Your task to perform on an android device: Add macbook pro 13 inch to the cart on bestbuy, then select checkout. Image 0: 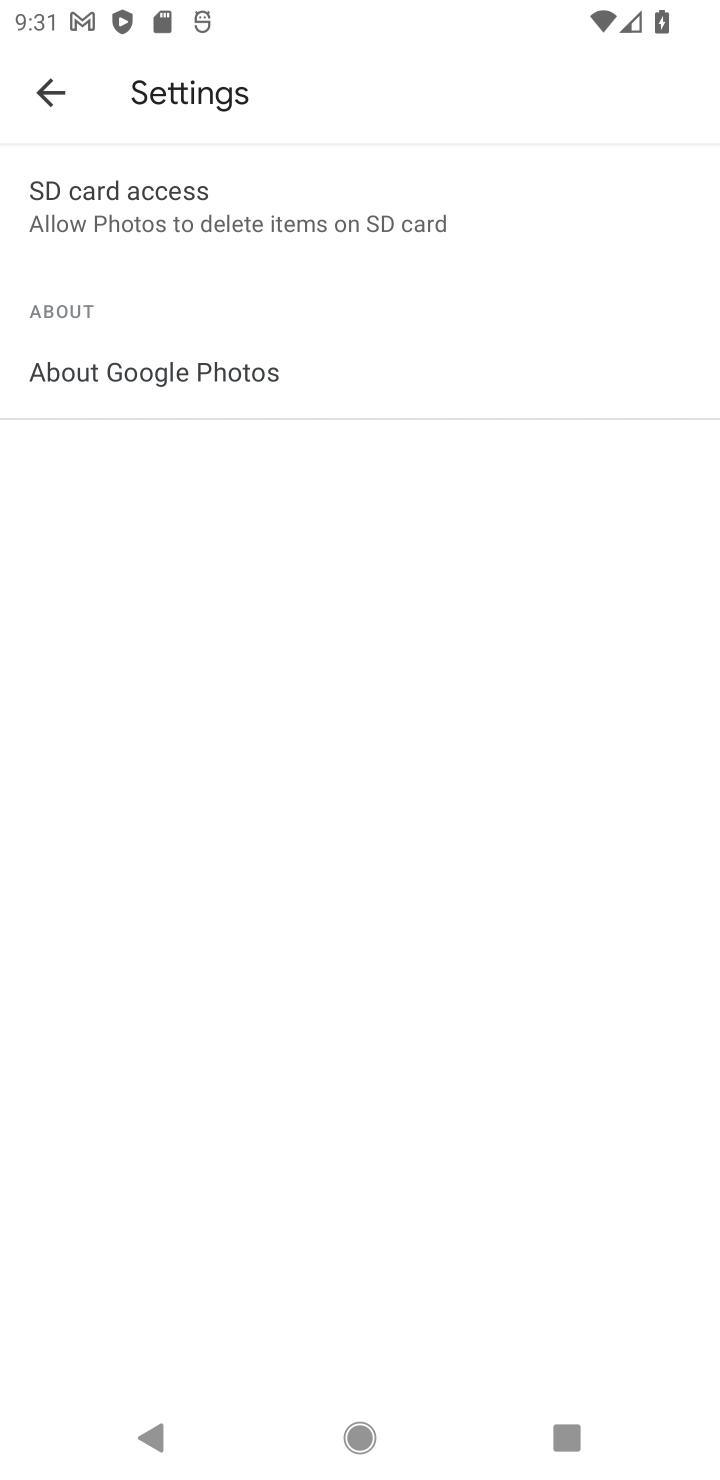
Step 0: press home button
Your task to perform on an android device: Add macbook pro 13 inch to the cart on bestbuy, then select checkout. Image 1: 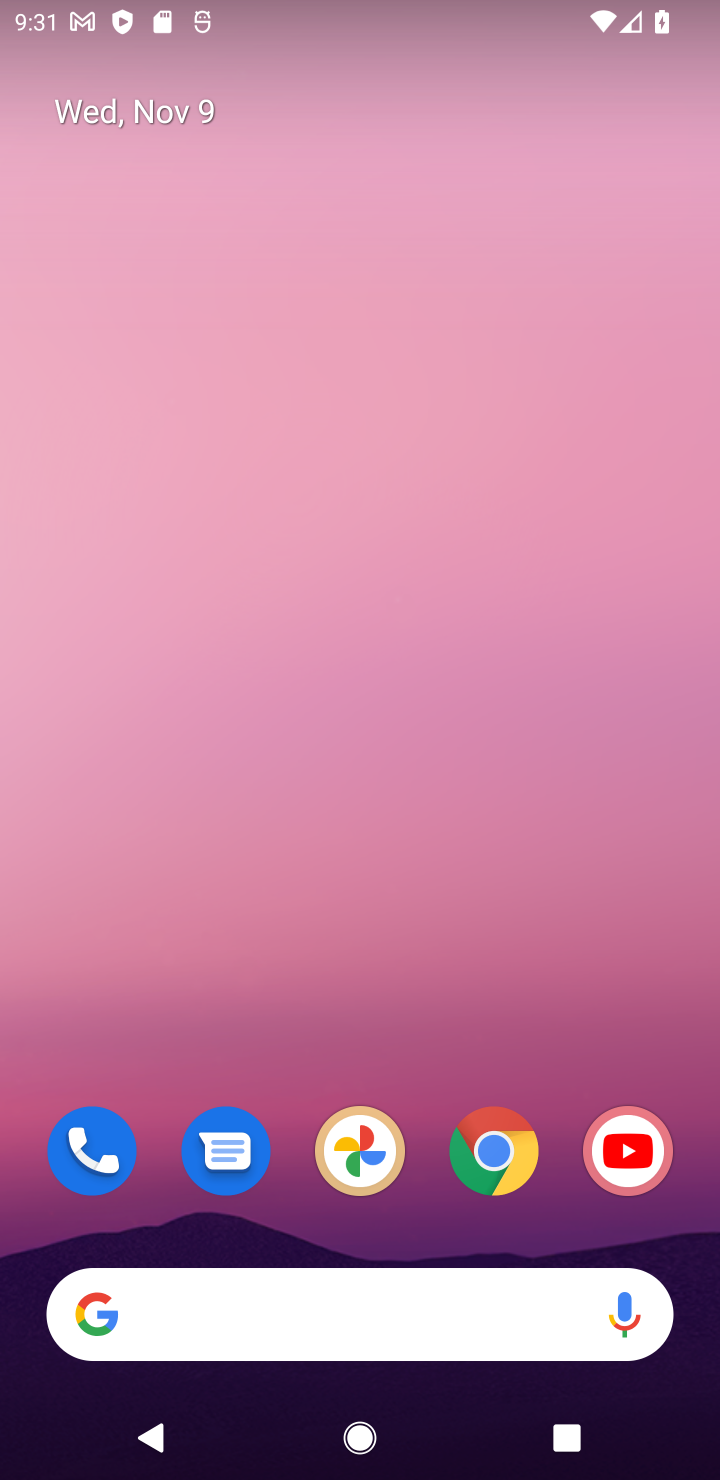
Step 1: click (499, 1156)
Your task to perform on an android device: Add macbook pro 13 inch to the cart on bestbuy, then select checkout. Image 2: 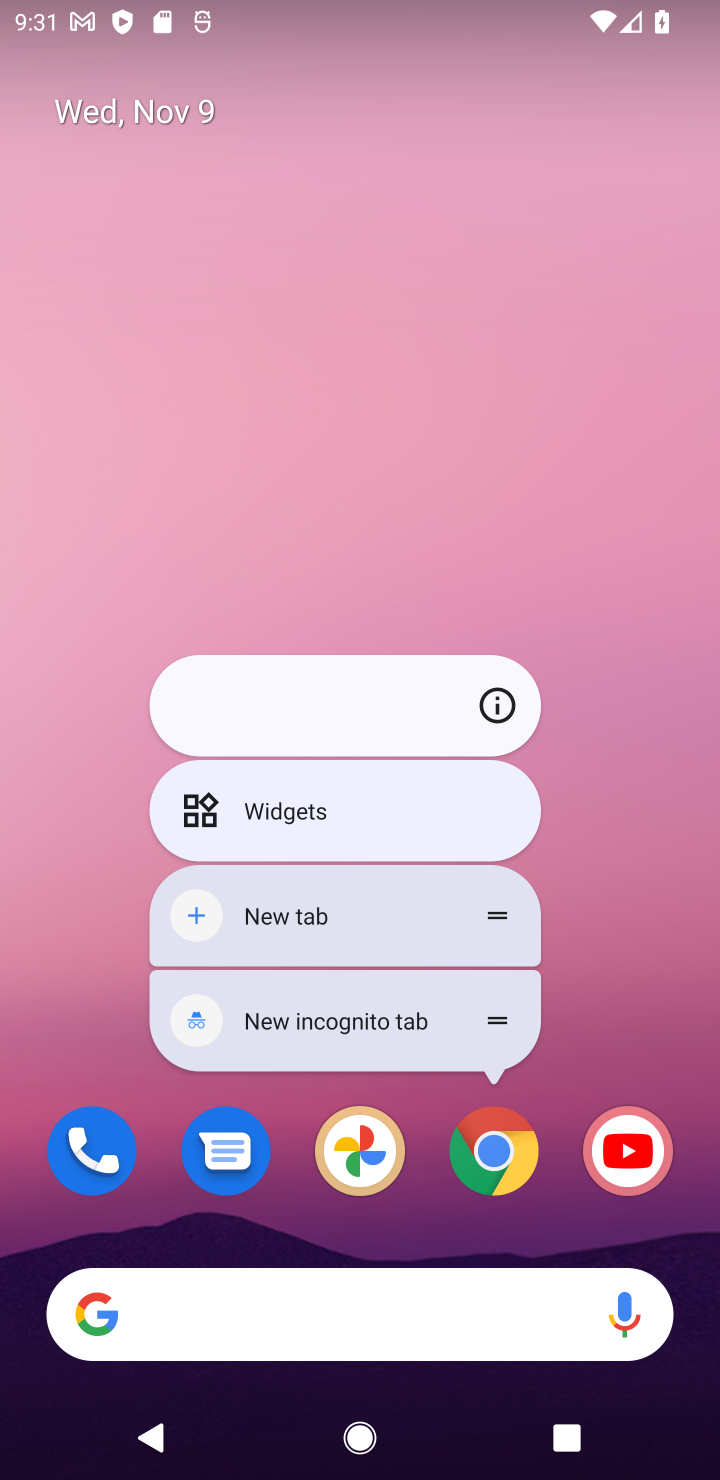
Step 2: click (499, 1156)
Your task to perform on an android device: Add macbook pro 13 inch to the cart on bestbuy, then select checkout. Image 3: 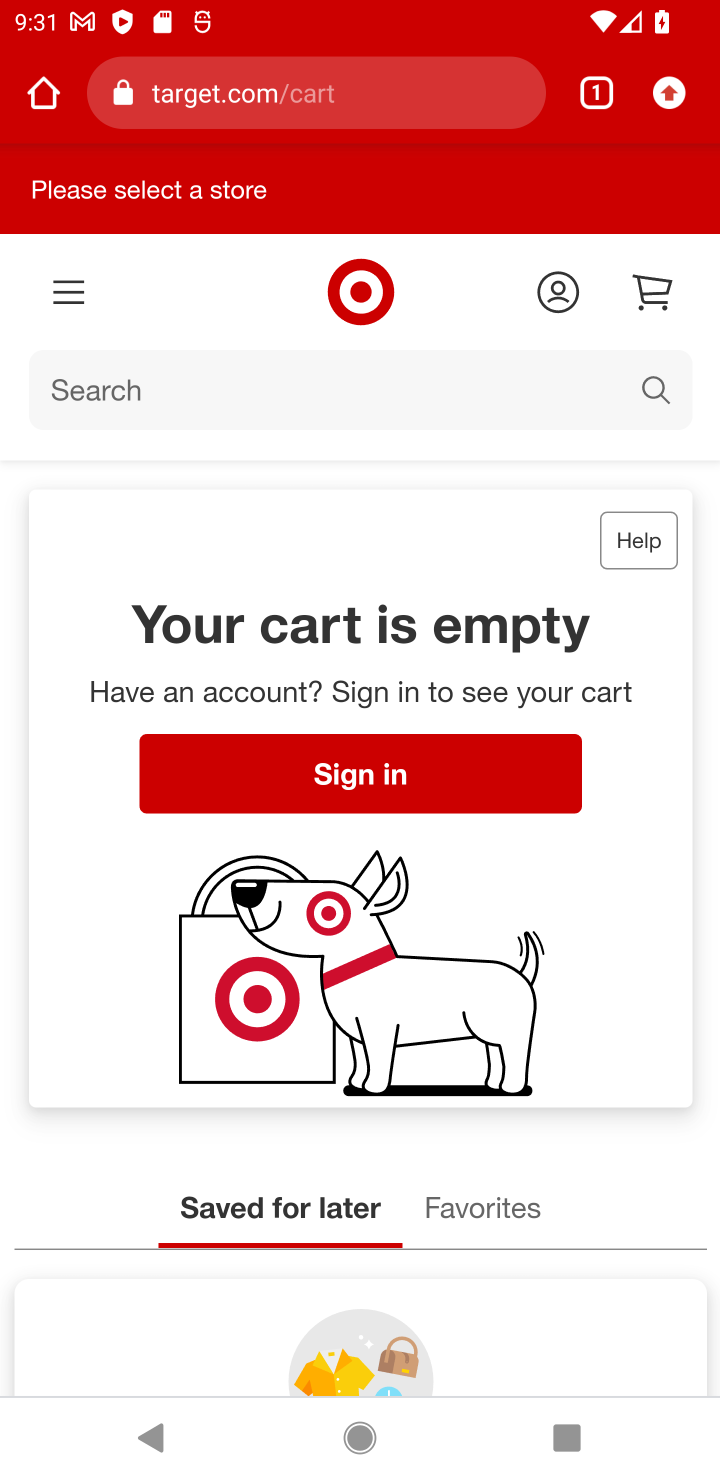
Step 3: click (288, 86)
Your task to perform on an android device: Add macbook pro 13 inch to the cart on bestbuy, then select checkout. Image 4: 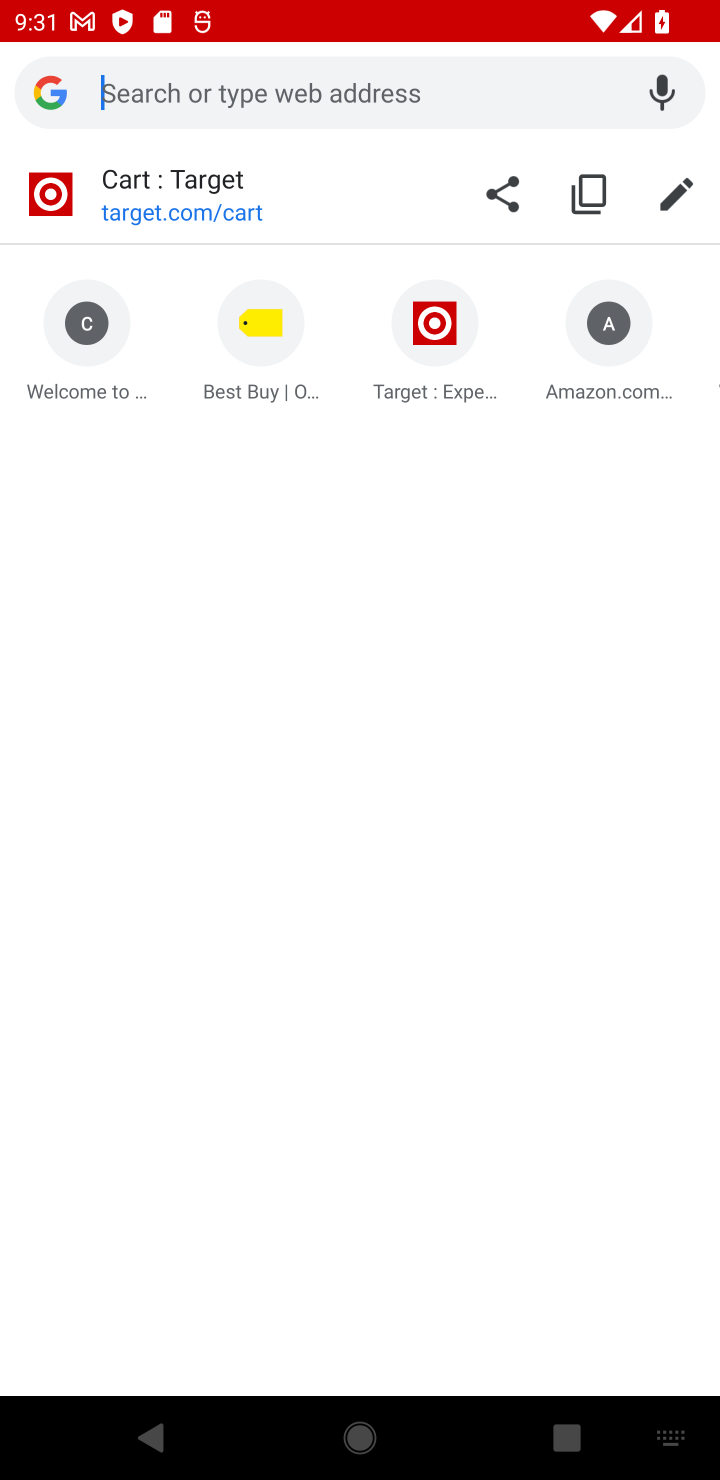
Step 4: type "bestbuy"
Your task to perform on an android device: Add macbook pro 13 inch to the cart on bestbuy, then select checkout. Image 5: 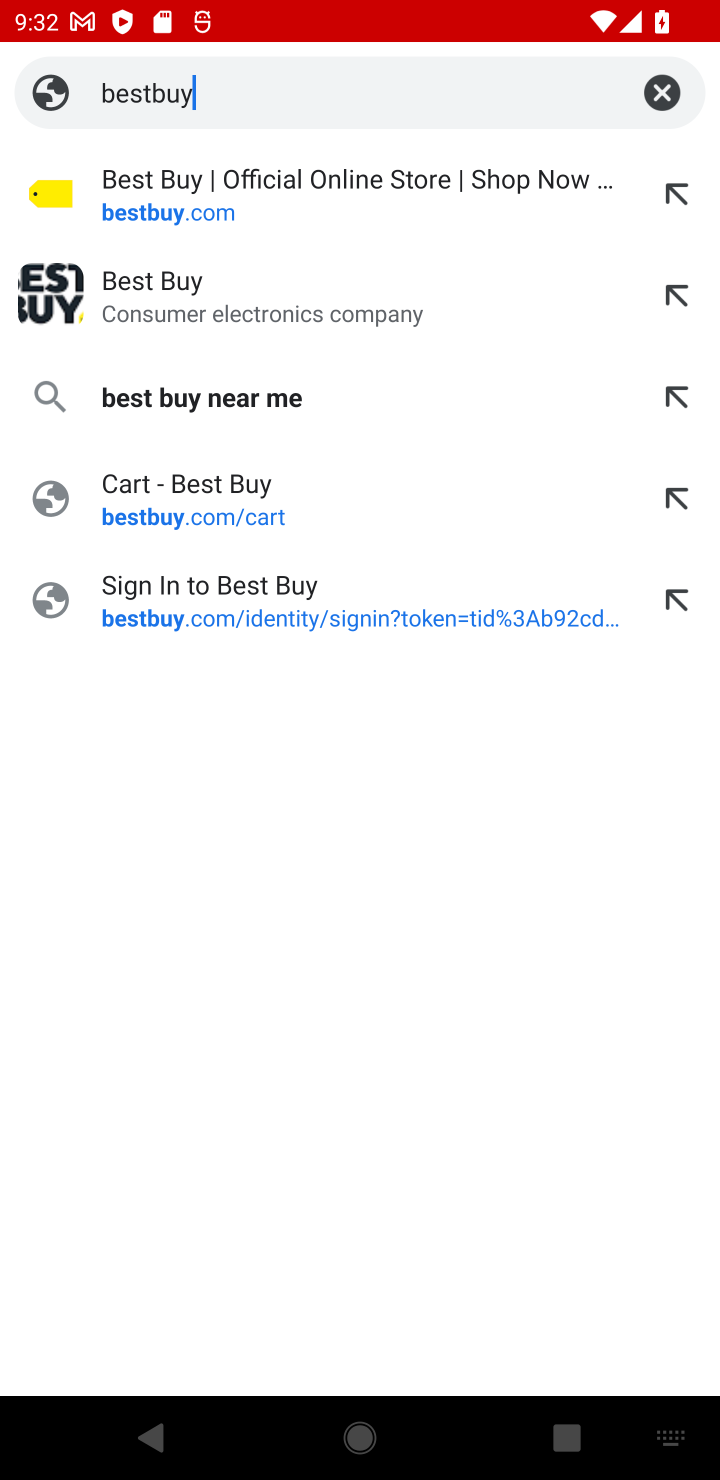
Step 5: click (300, 211)
Your task to perform on an android device: Add macbook pro 13 inch to the cart on bestbuy, then select checkout. Image 6: 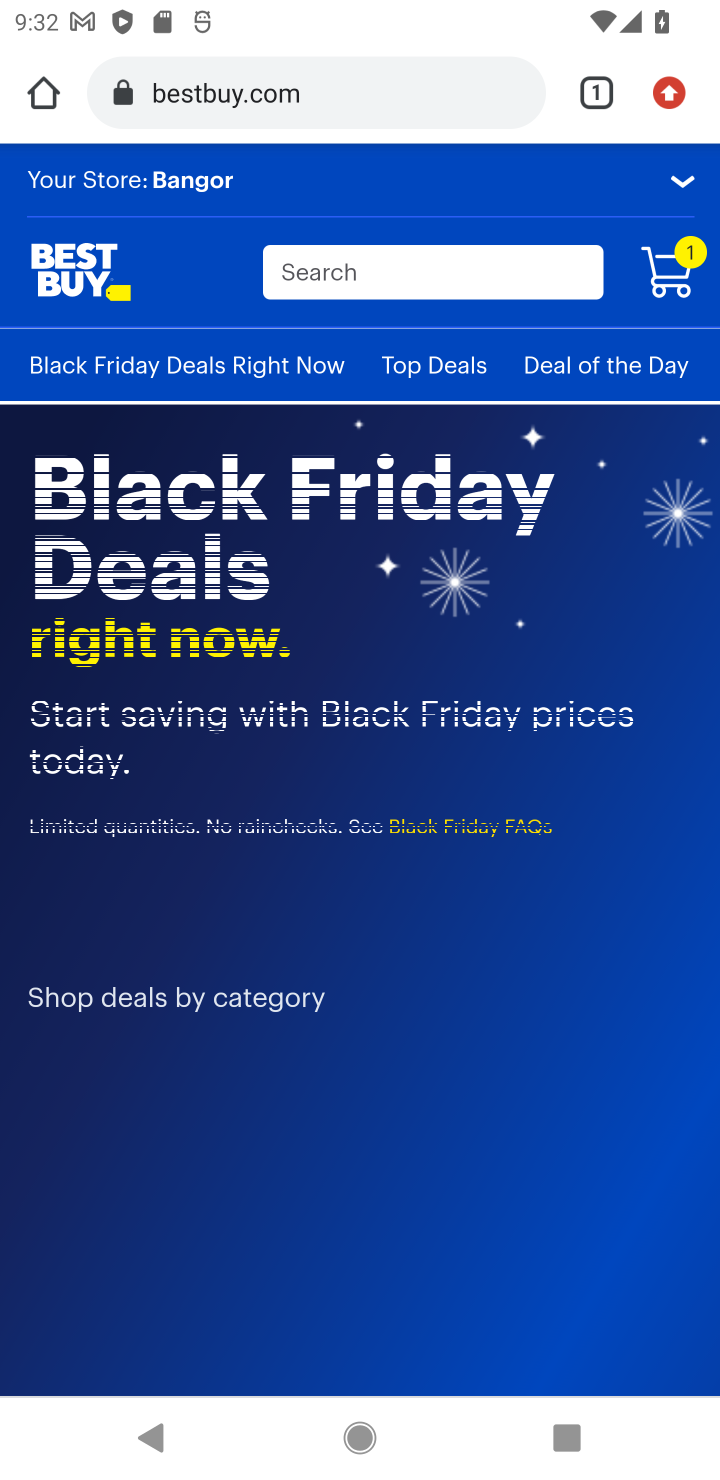
Step 6: click (440, 254)
Your task to perform on an android device: Add macbook pro 13 inch to the cart on bestbuy, then select checkout. Image 7: 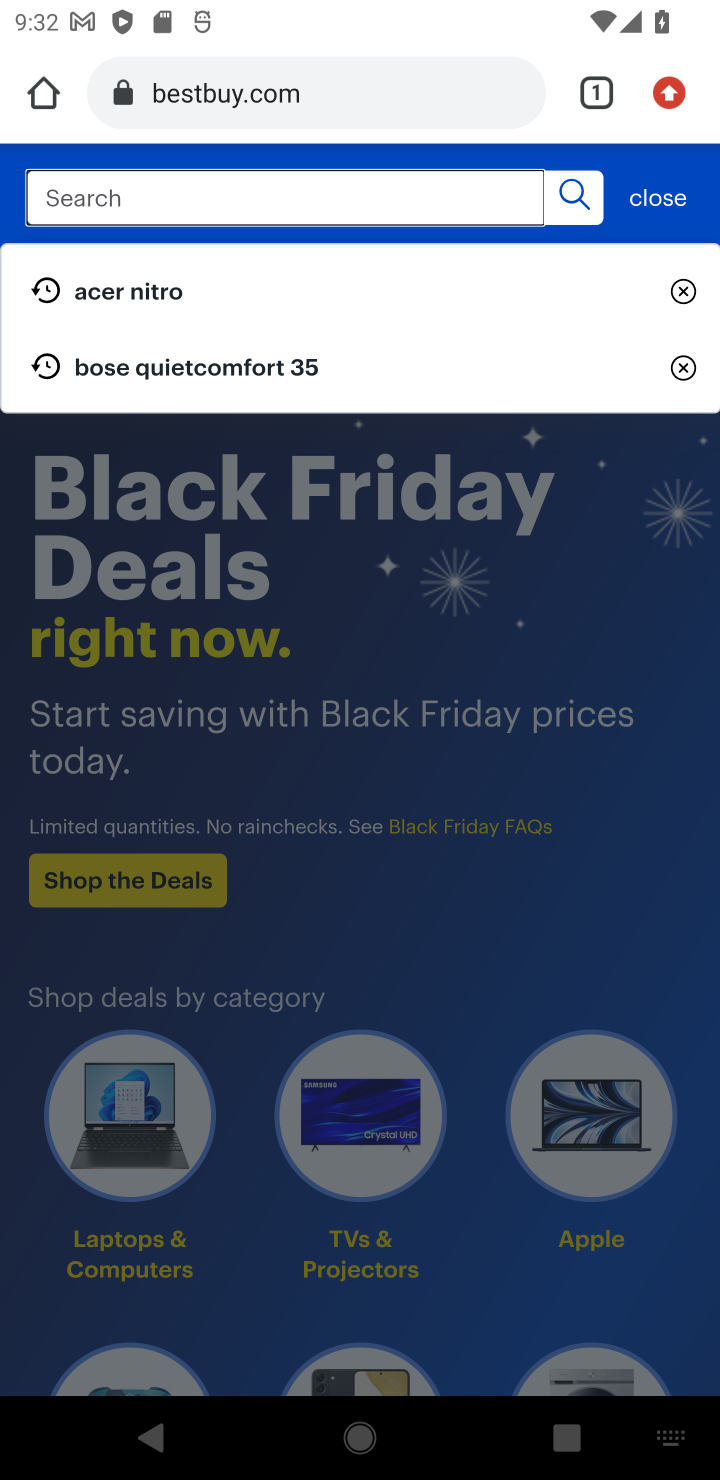
Step 7: type "macbook pro 13 inch"
Your task to perform on an android device: Add macbook pro 13 inch to the cart on bestbuy, then select checkout. Image 8: 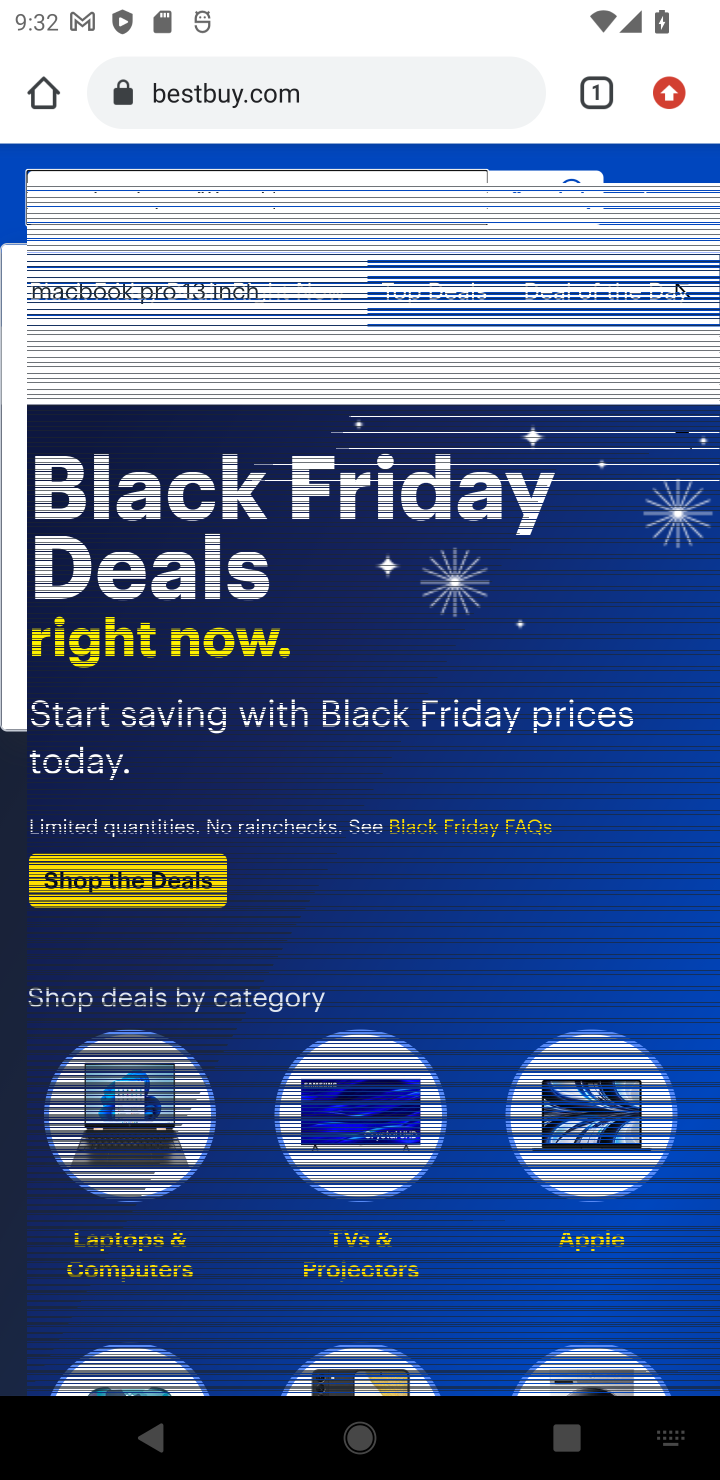
Step 8: press enter
Your task to perform on an android device: Add macbook pro 13 inch to the cart on bestbuy, then select checkout. Image 9: 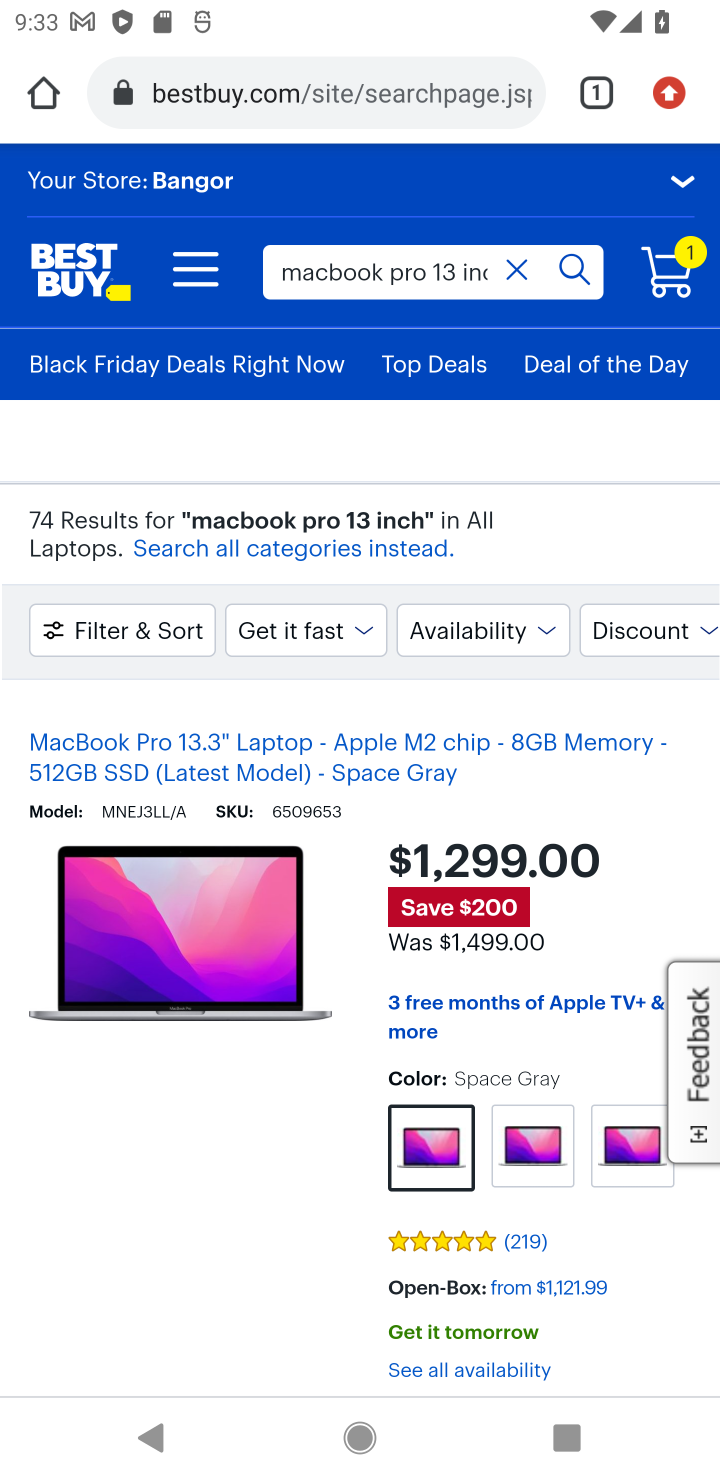
Step 9: click (217, 982)
Your task to perform on an android device: Add macbook pro 13 inch to the cart on bestbuy, then select checkout. Image 10: 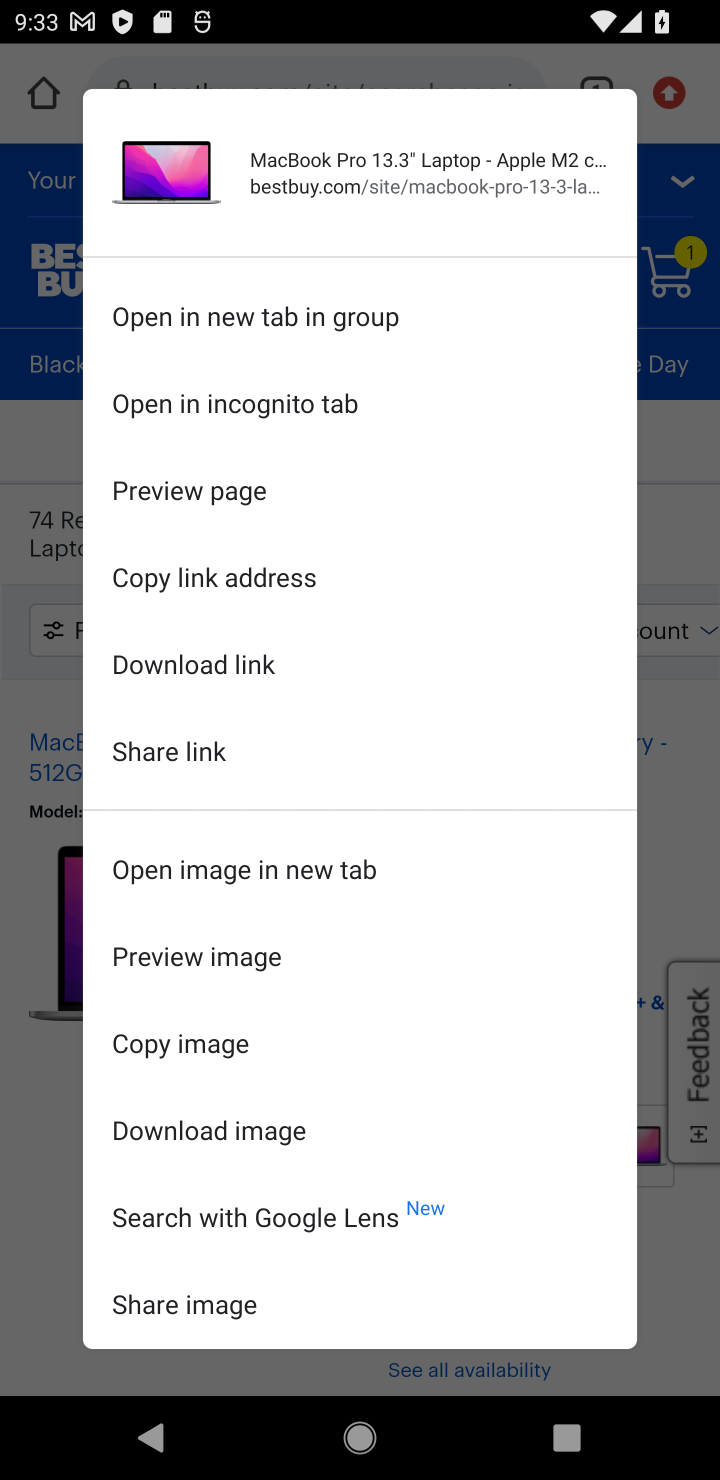
Step 10: click (653, 851)
Your task to perform on an android device: Add macbook pro 13 inch to the cart on bestbuy, then select checkout. Image 11: 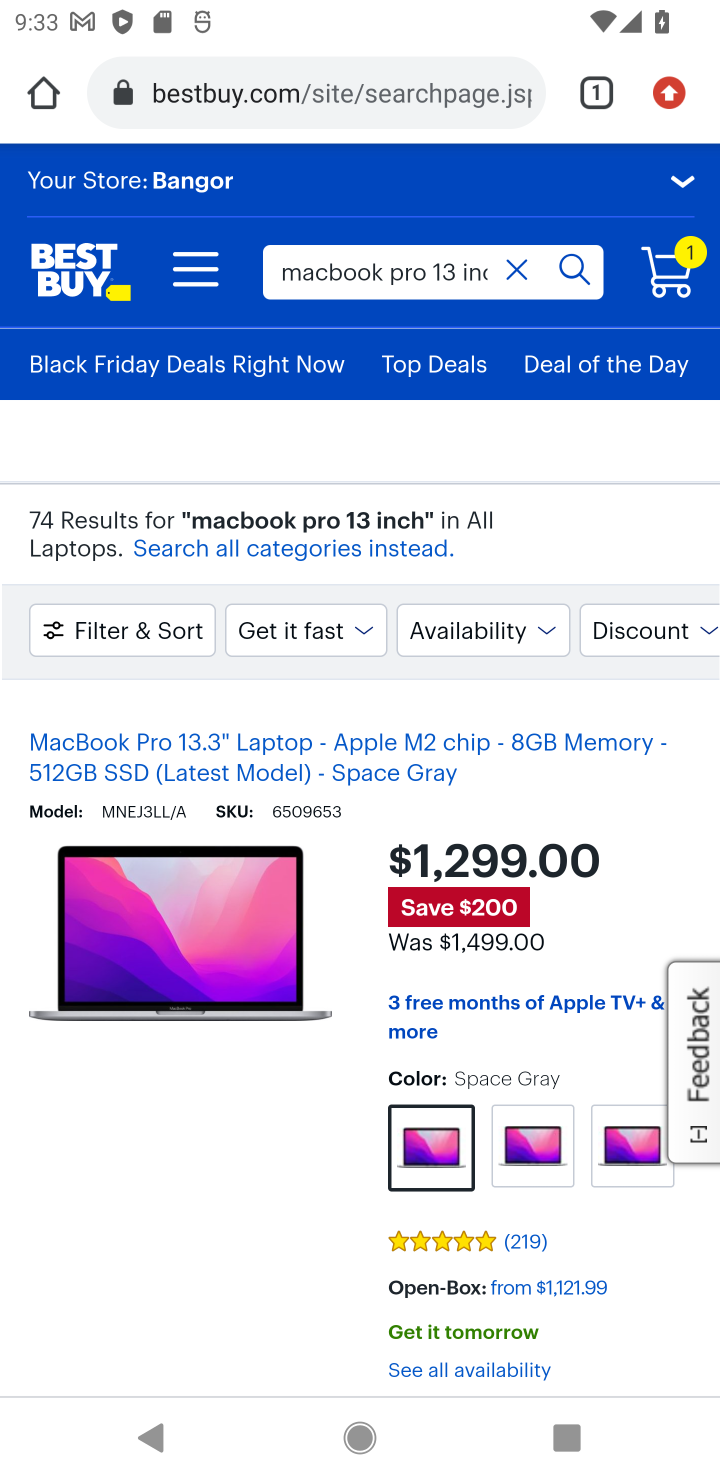
Step 11: click (471, 871)
Your task to perform on an android device: Add macbook pro 13 inch to the cart on bestbuy, then select checkout. Image 12: 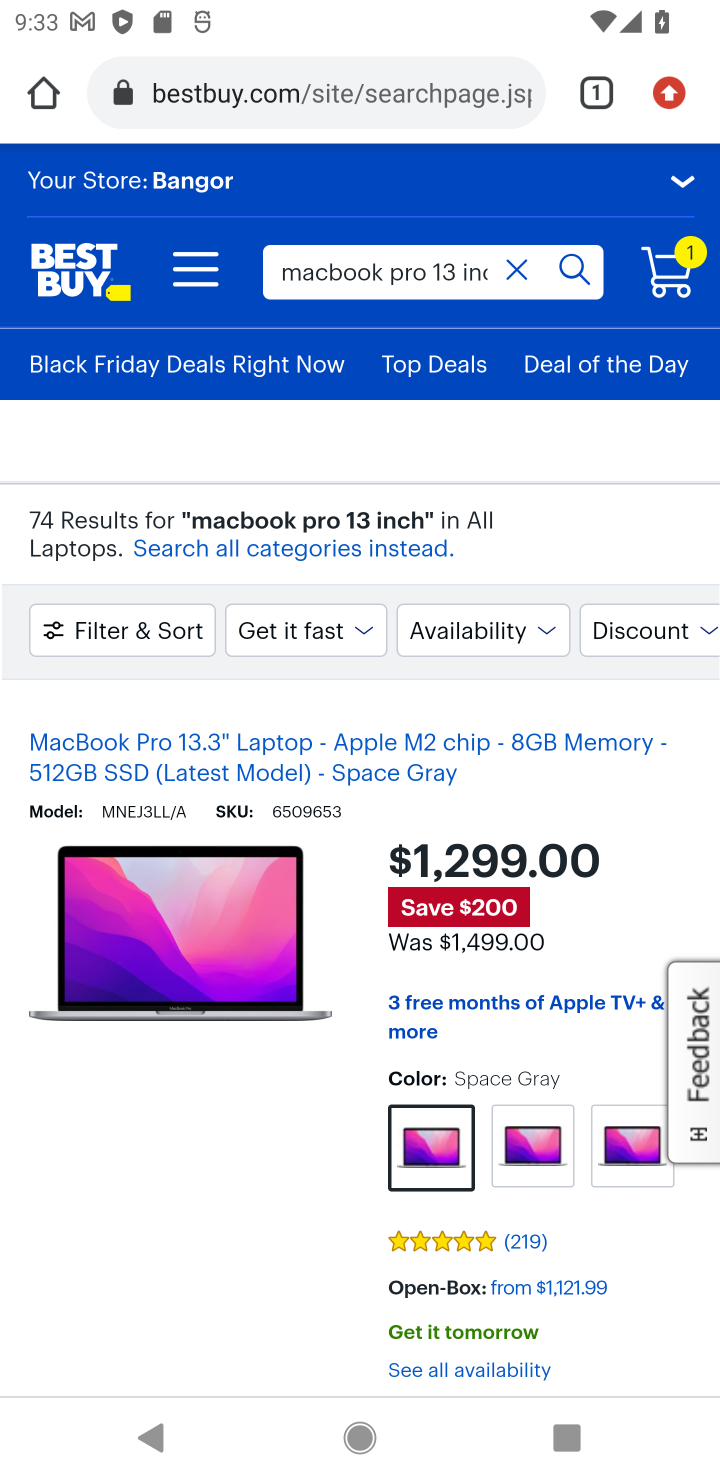
Step 12: click (306, 758)
Your task to perform on an android device: Add macbook pro 13 inch to the cart on bestbuy, then select checkout. Image 13: 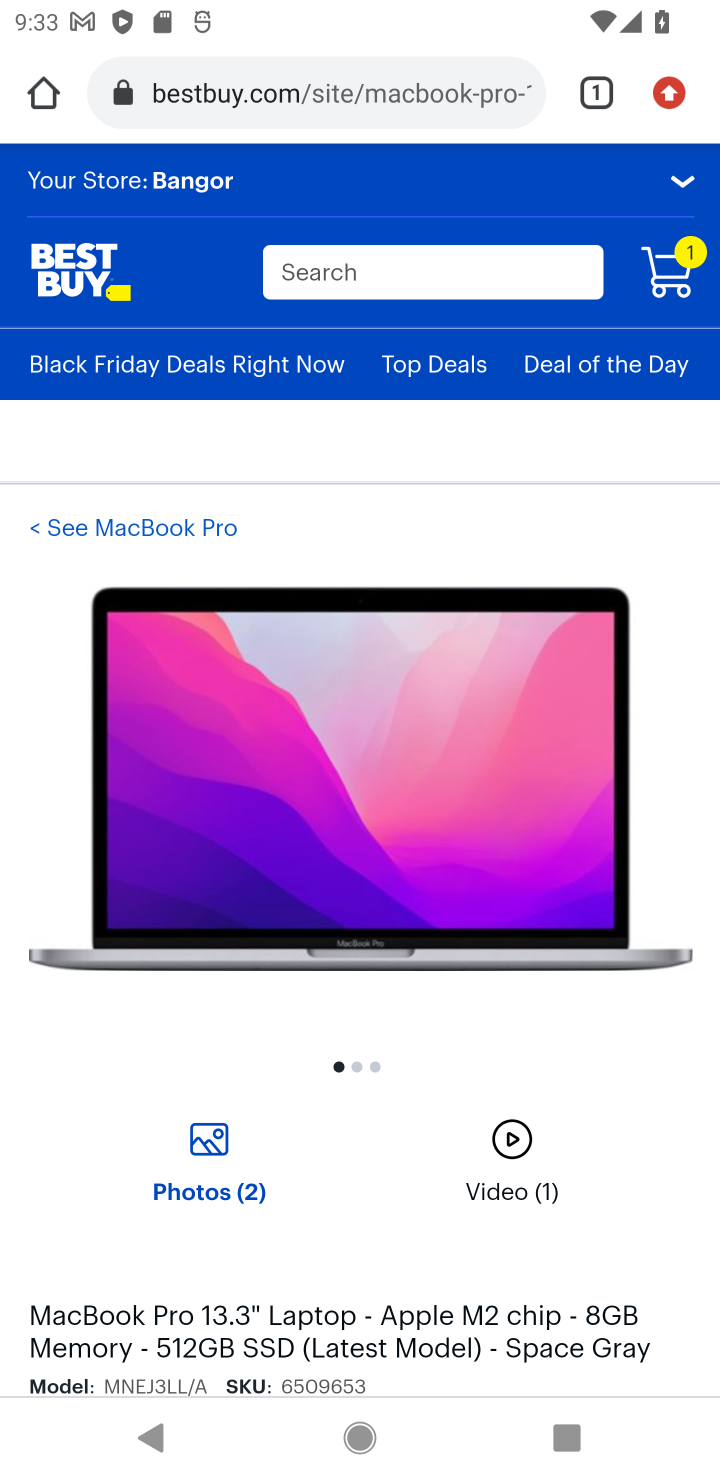
Step 13: drag from (528, 1200) to (461, 22)
Your task to perform on an android device: Add macbook pro 13 inch to the cart on bestbuy, then select checkout. Image 14: 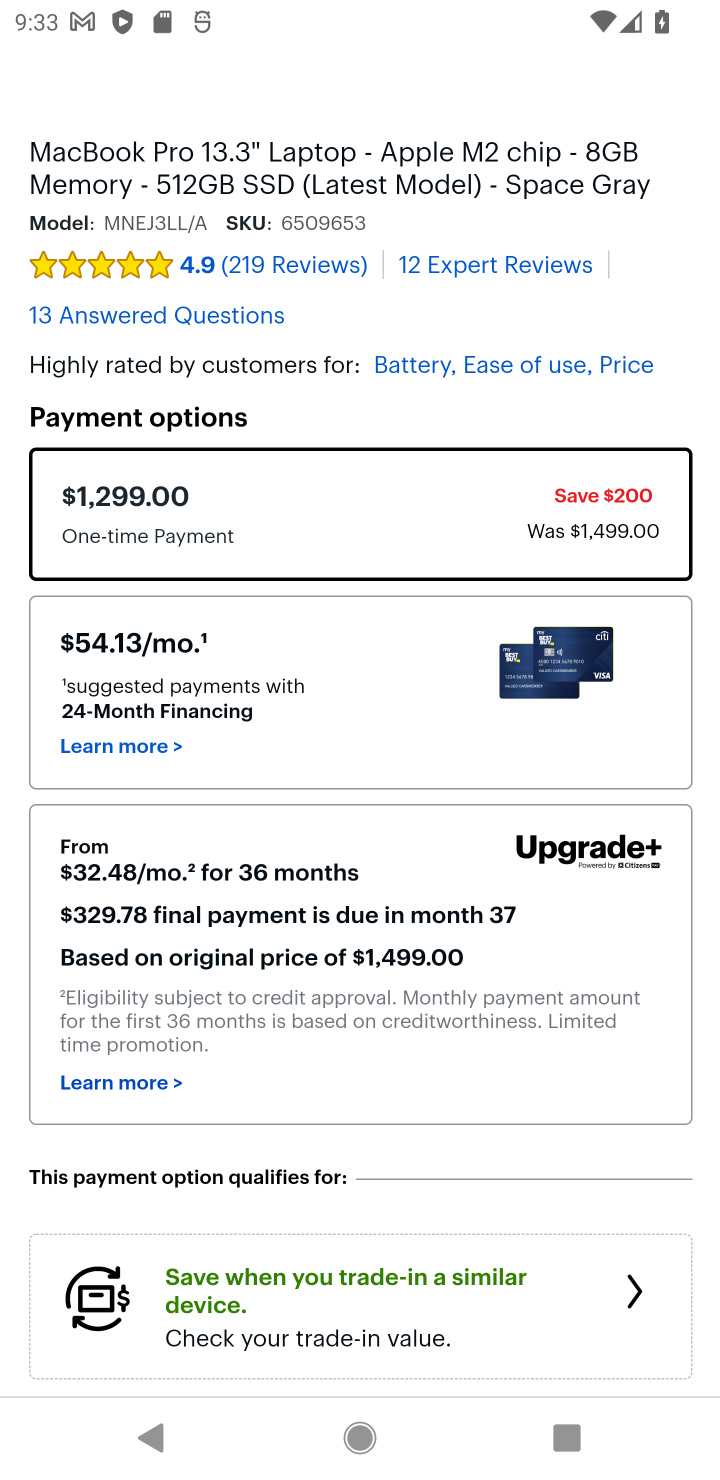
Step 14: drag from (481, 655) to (461, 88)
Your task to perform on an android device: Add macbook pro 13 inch to the cart on bestbuy, then select checkout. Image 15: 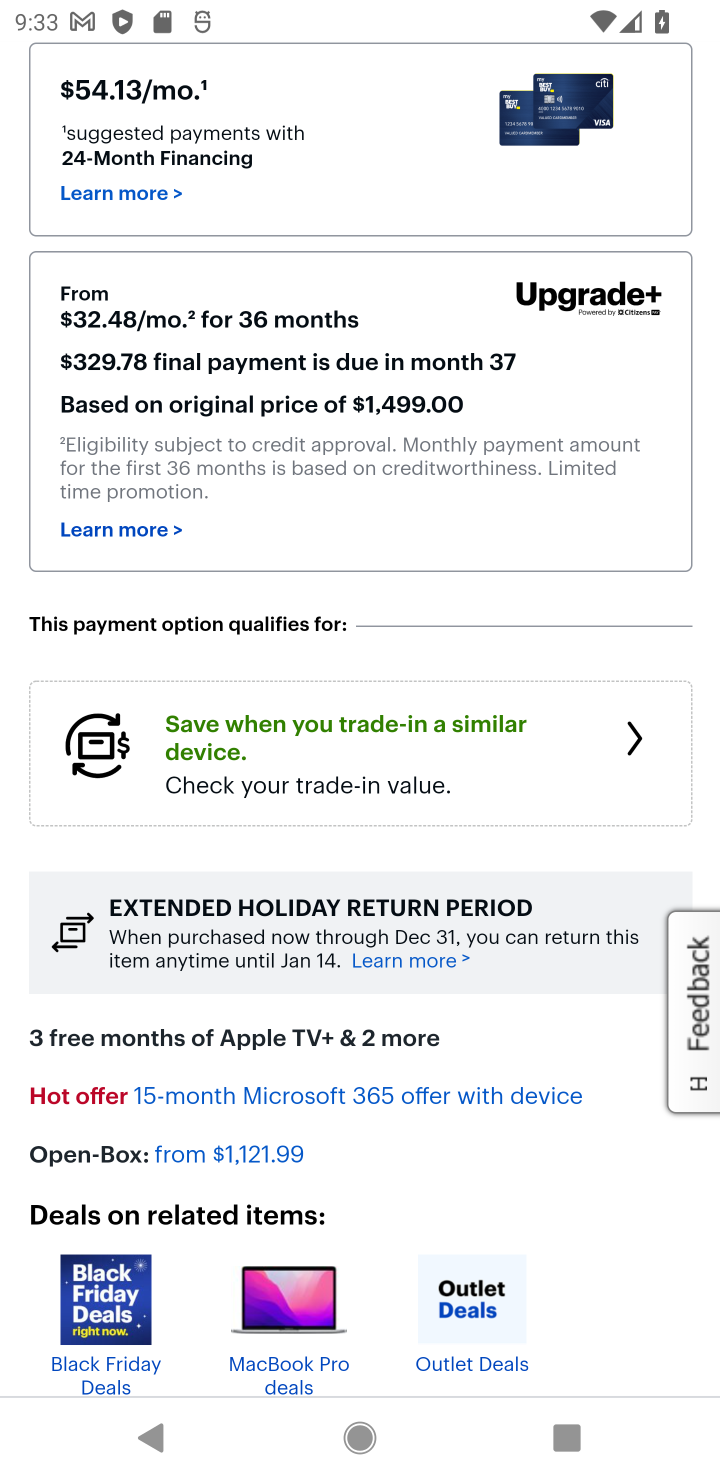
Step 15: drag from (448, 813) to (441, 281)
Your task to perform on an android device: Add macbook pro 13 inch to the cart on bestbuy, then select checkout. Image 16: 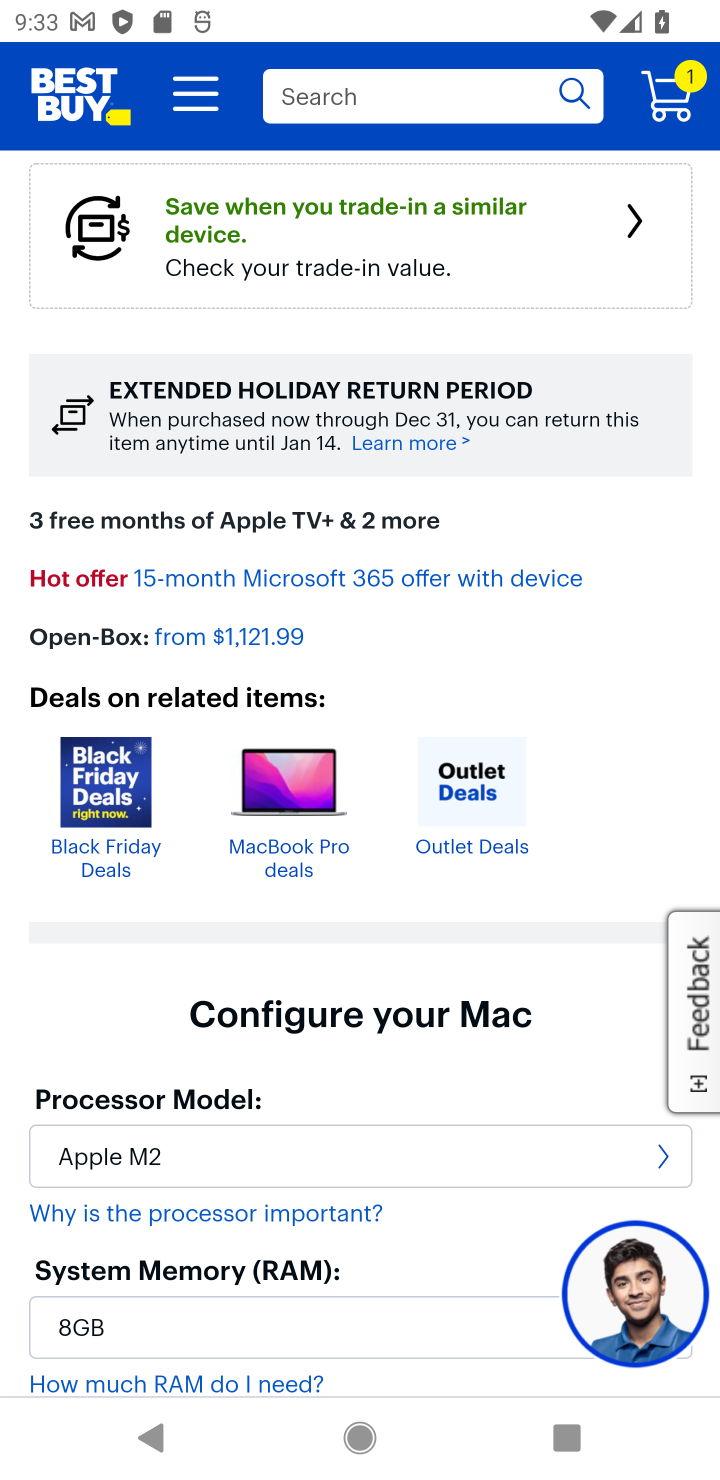
Step 16: drag from (408, 950) to (271, 38)
Your task to perform on an android device: Add macbook pro 13 inch to the cart on bestbuy, then select checkout. Image 17: 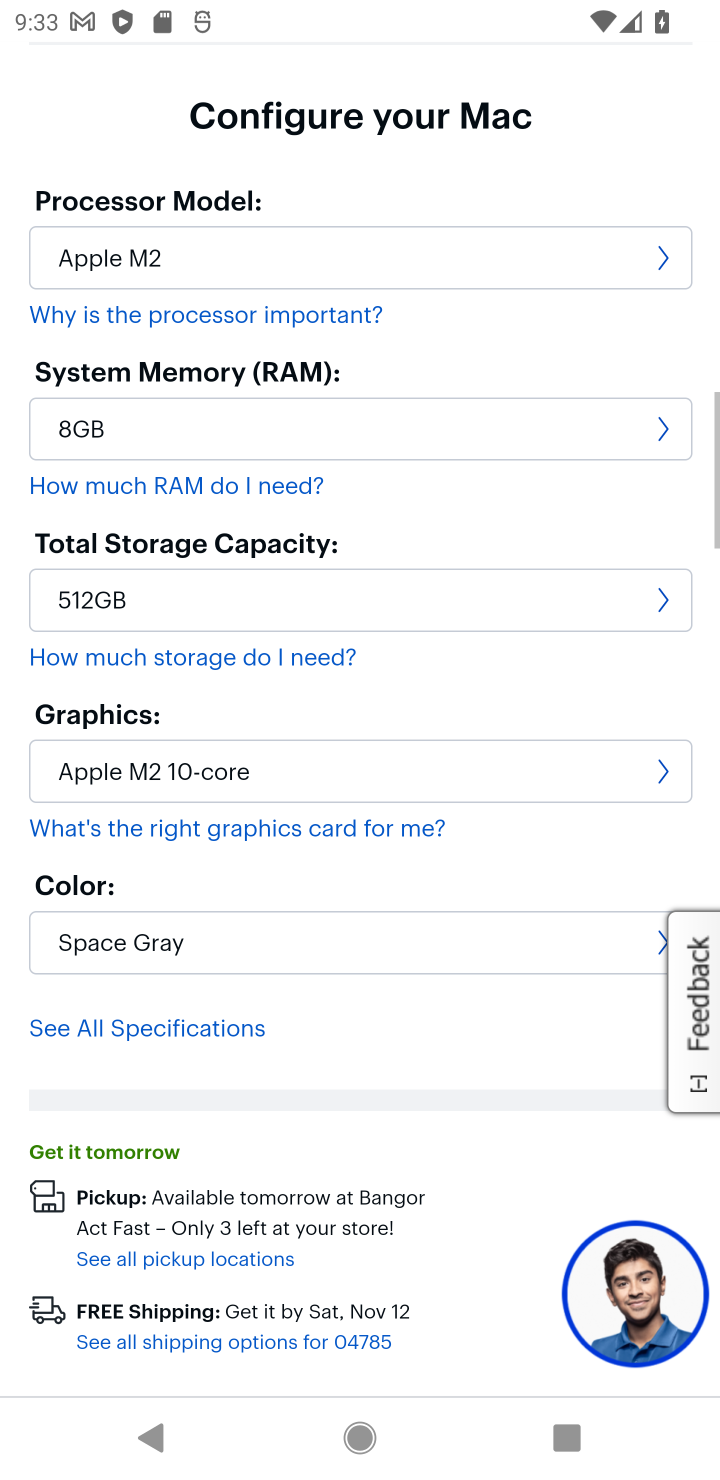
Step 17: drag from (374, 987) to (349, 304)
Your task to perform on an android device: Add macbook pro 13 inch to the cart on bestbuy, then select checkout. Image 18: 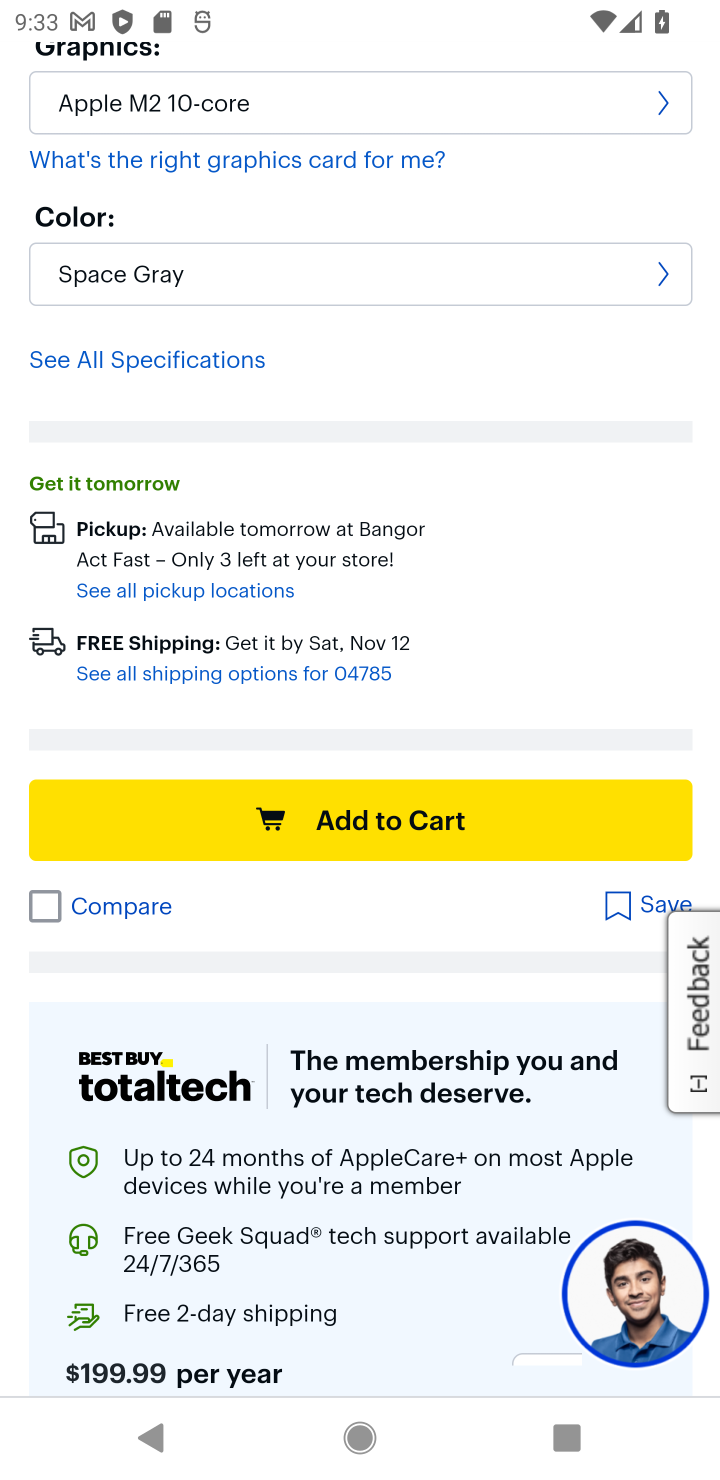
Step 18: click (482, 810)
Your task to perform on an android device: Add macbook pro 13 inch to the cart on bestbuy, then select checkout. Image 19: 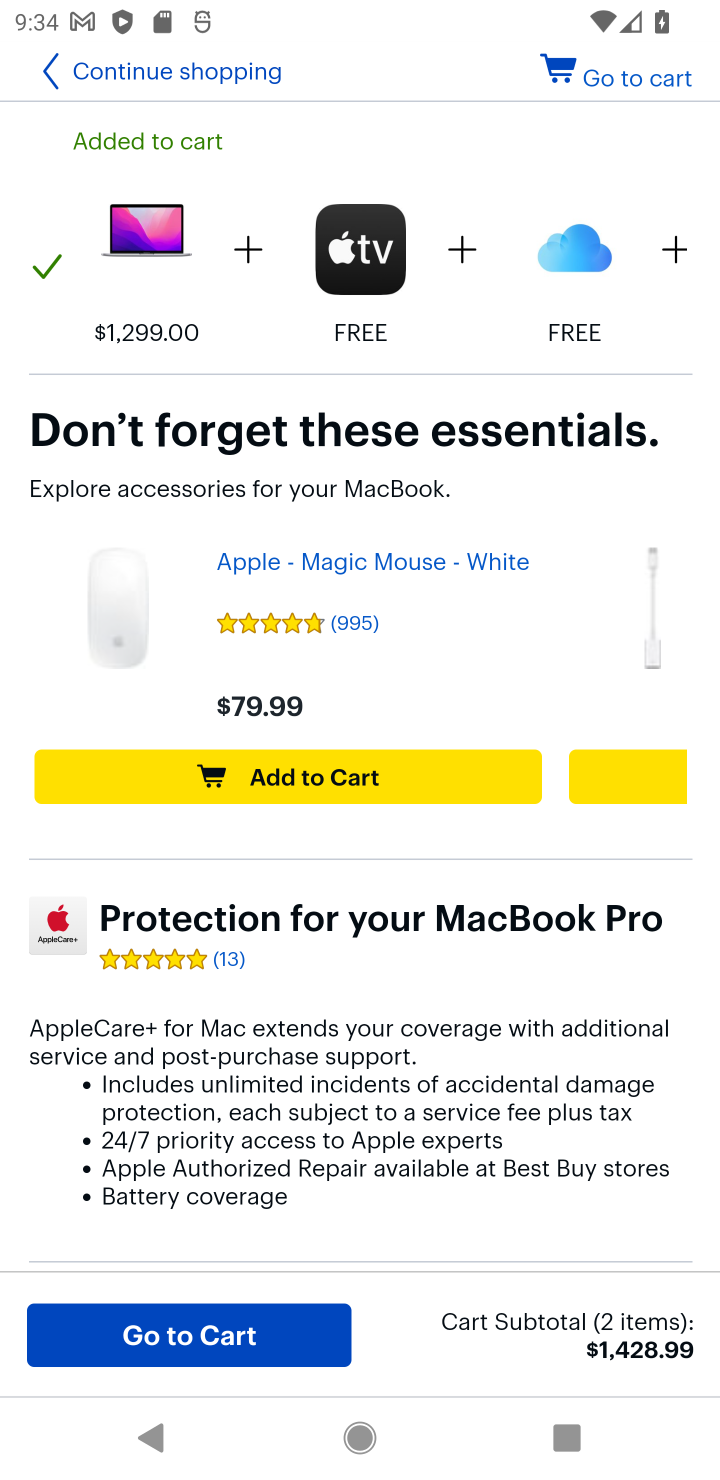
Step 19: click (267, 838)
Your task to perform on an android device: Add macbook pro 13 inch to the cart on bestbuy, then select checkout. Image 20: 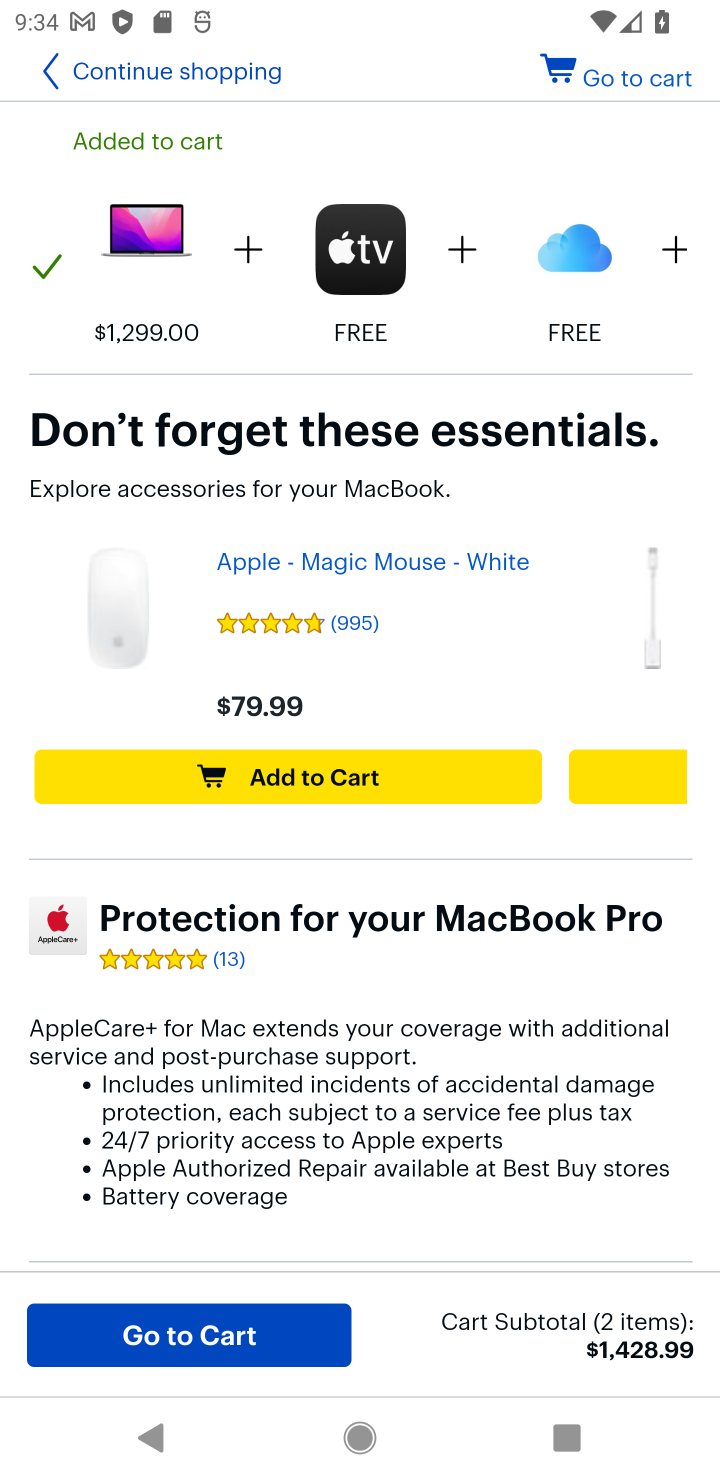
Step 20: click (241, 1331)
Your task to perform on an android device: Add macbook pro 13 inch to the cart on bestbuy, then select checkout. Image 21: 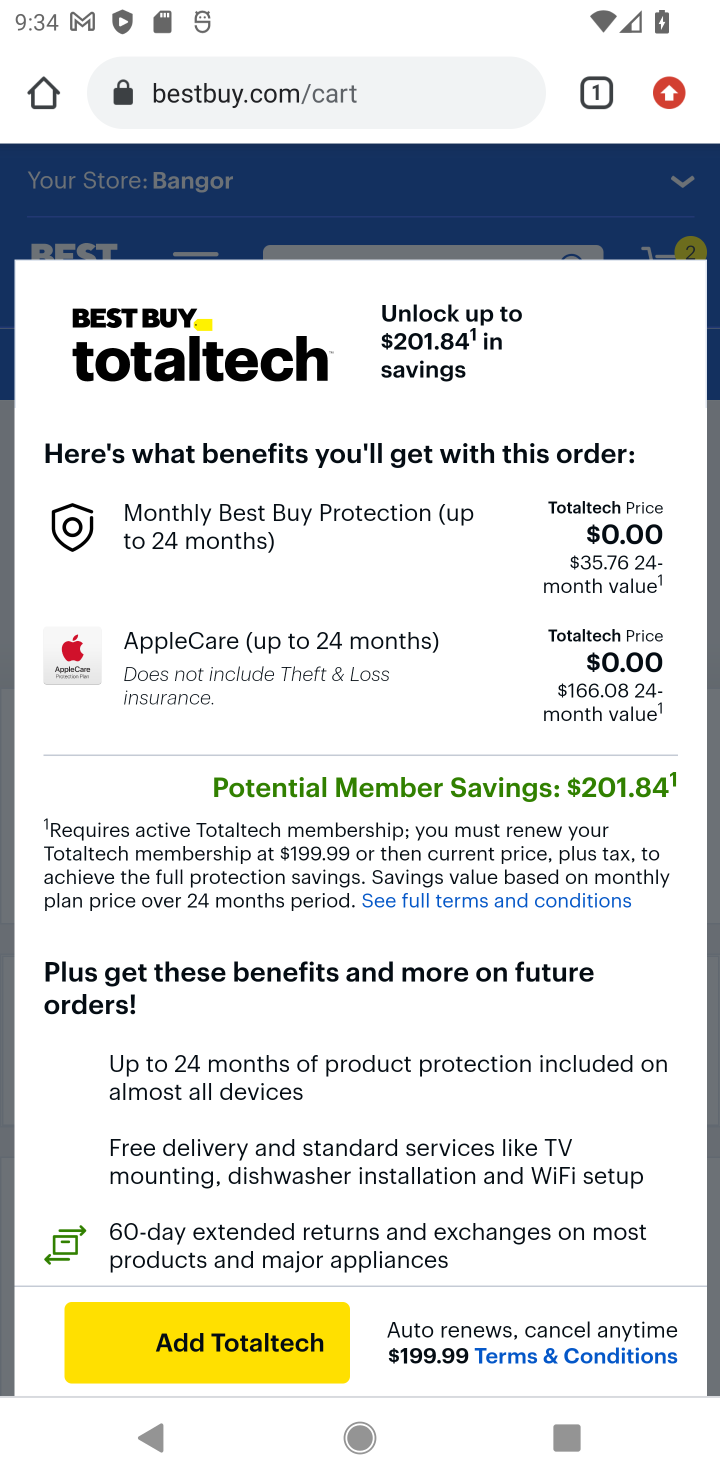
Step 21: click (275, 831)
Your task to perform on an android device: Add macbook pro 13 inch to the cart on bestbuy, then select checkout. Image 22: 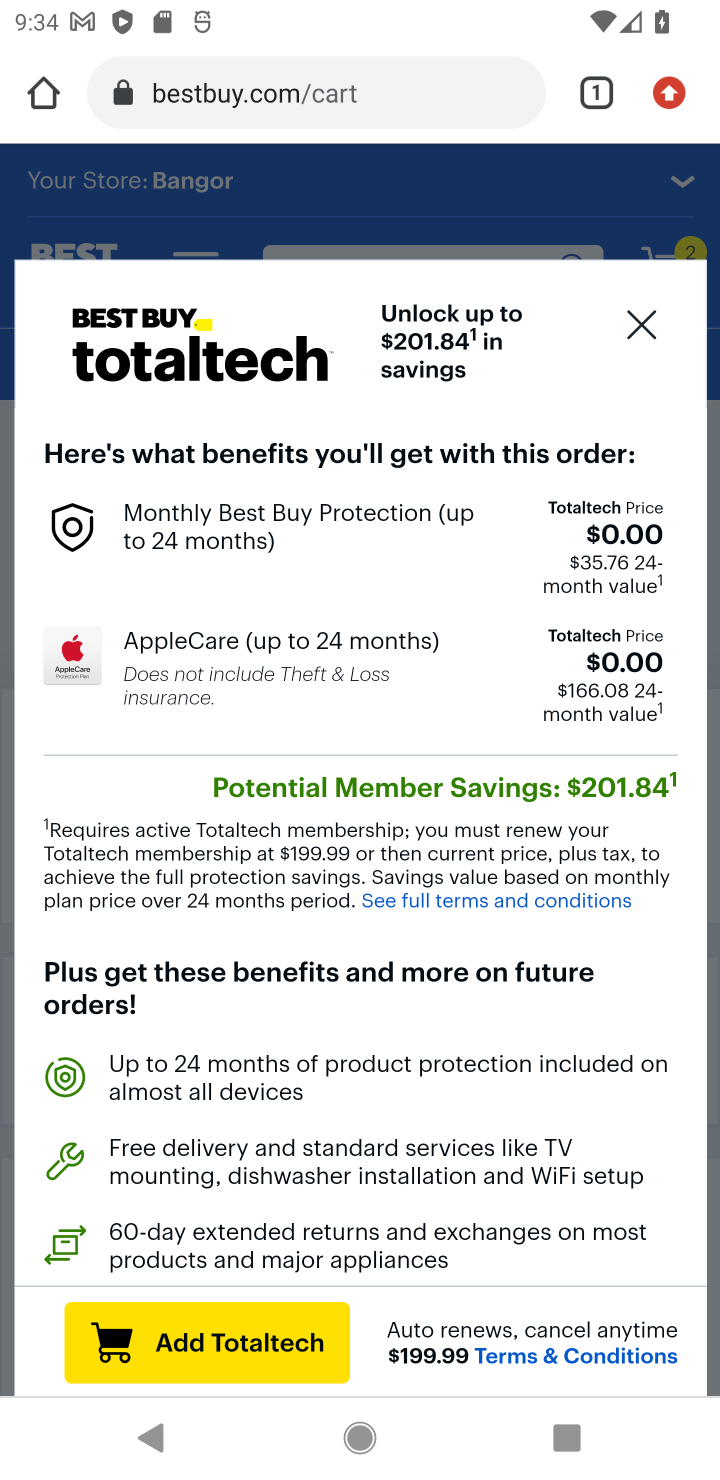
Step 22: click (253, 1350)
Your task to perform on an android device: Add macbook pro 13 inch to the cart on bestbuy, then select checkout. Image 23: 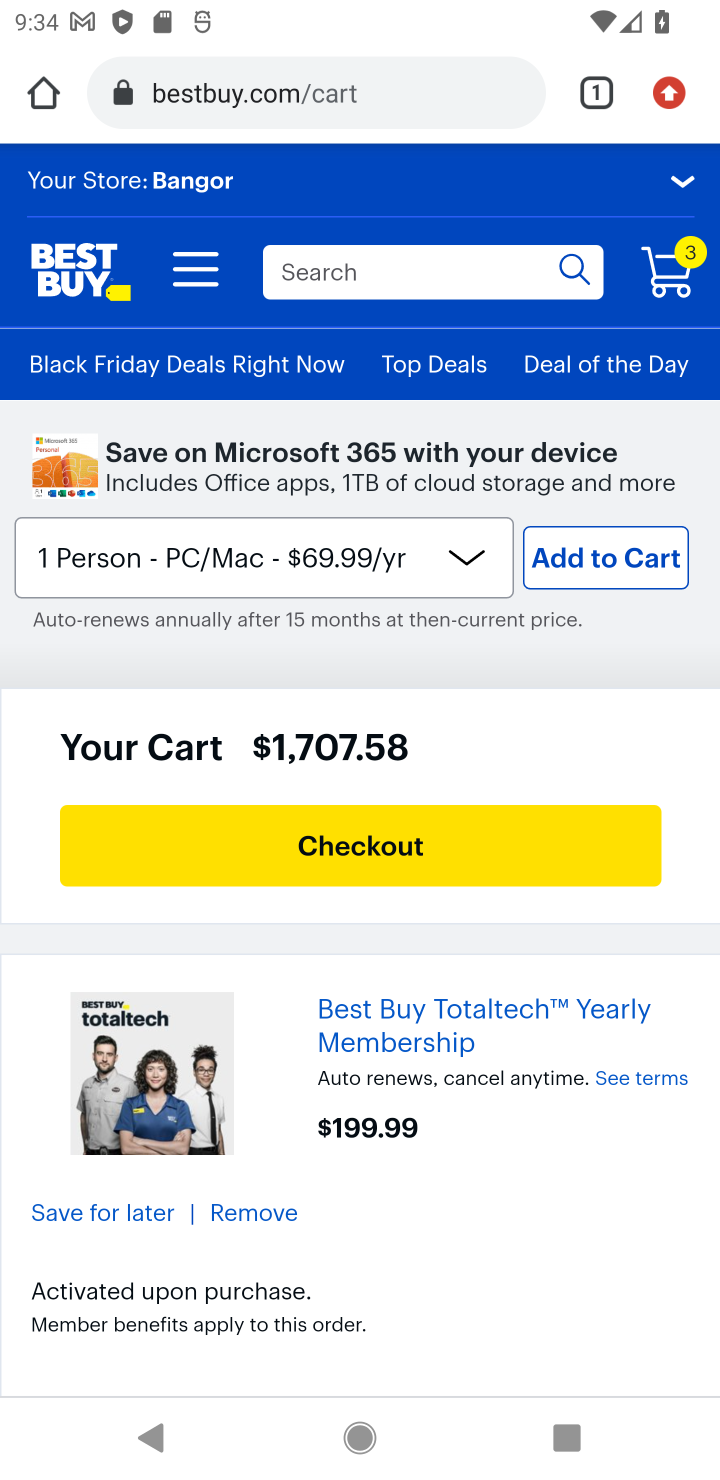
Step 23: click (264, 832)
Your task to perform on an android device: Add macbook pro 13 inch to the cart on bestbuy, then select checkout. Image 24: 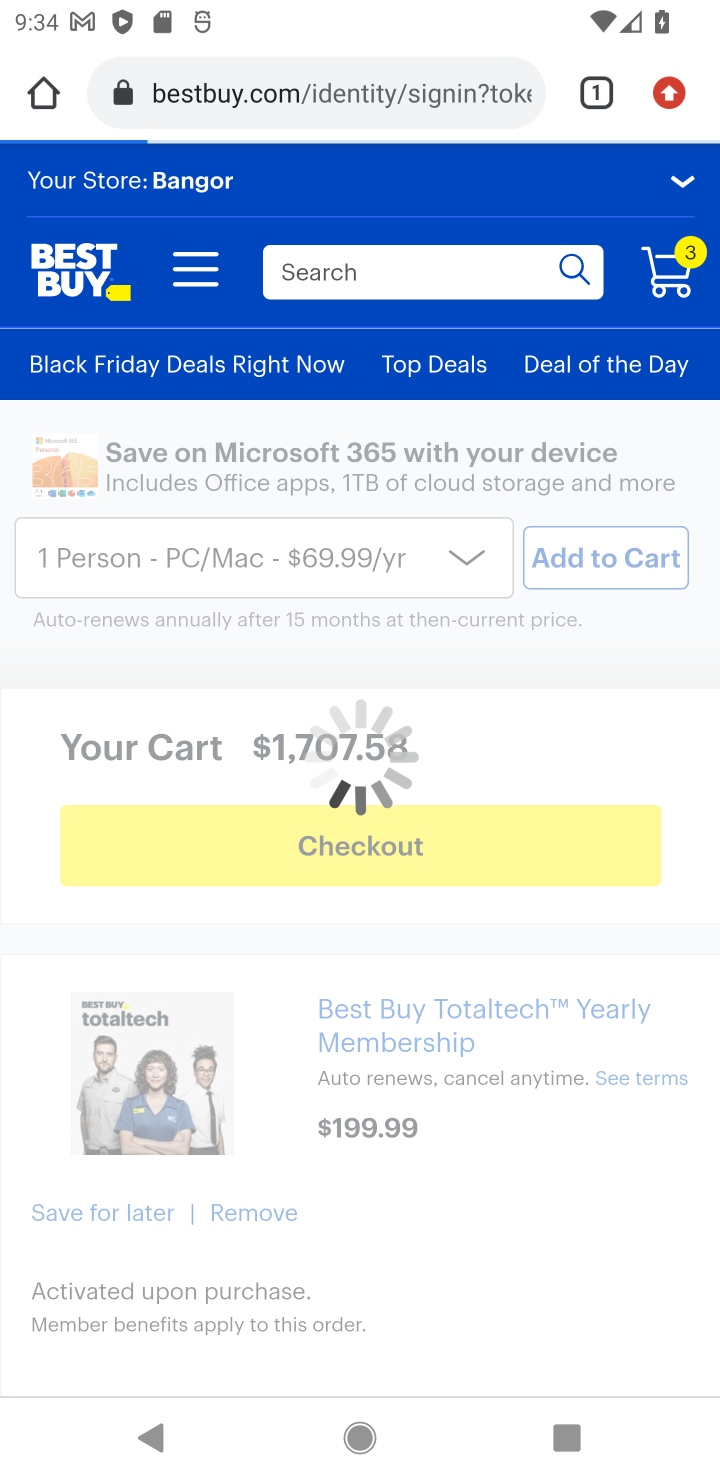
Step 24: task complete